Your task to perform on an android device: Open the web browser Image 0: 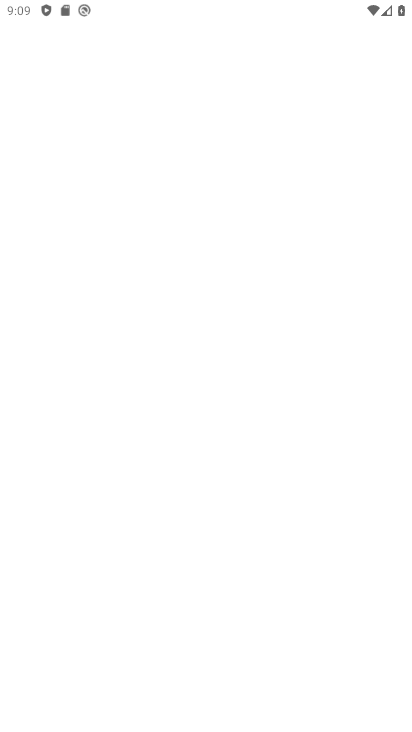
Step 0: click (186, 288)
Your task to perform on an android device: Open the web browser Image 1: 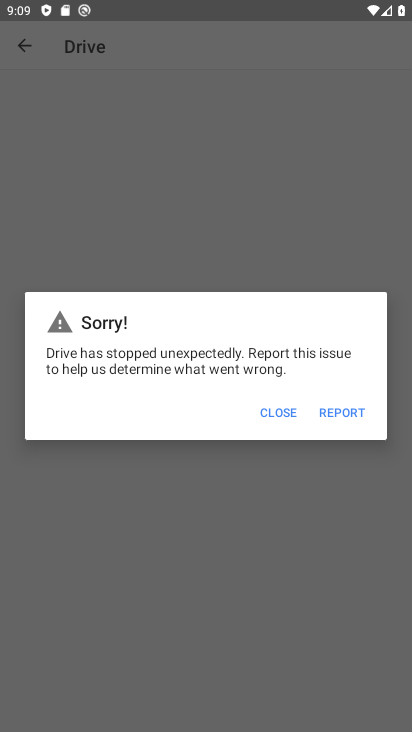
Step 1: press home button
Your task to perform on an android device: Open the web browser Image 2: 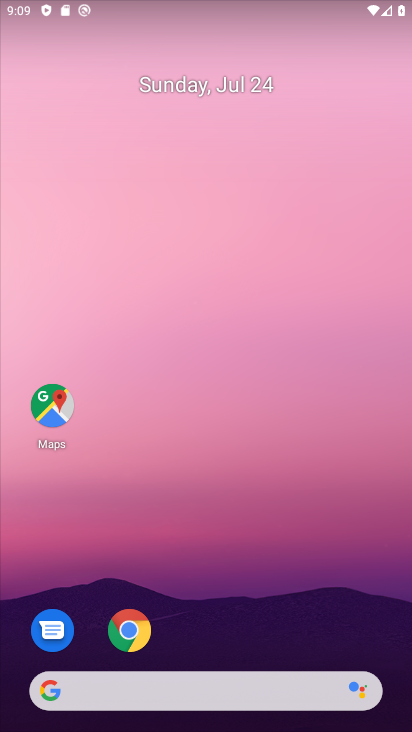
Step 2: click (123, 621)
Your task to perform on an android device: Open the web browser Image 3: 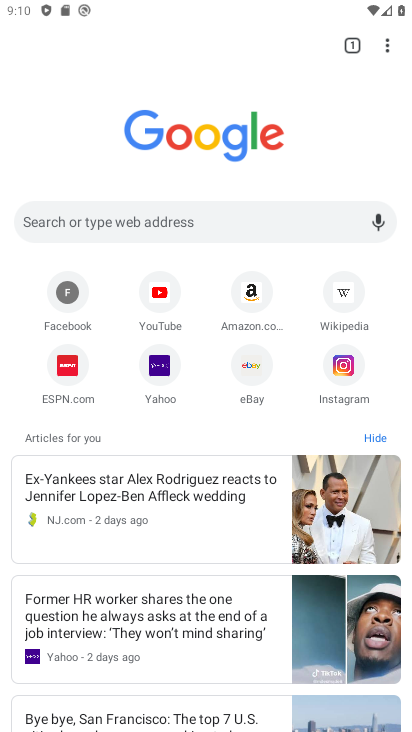
Step 3: task complete